Your task to perform on an android device: Check the news Image 0: 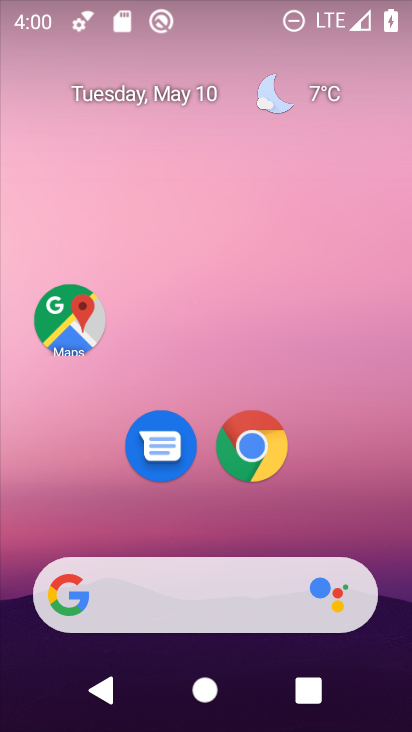
Step 0: drag from (222, 510) to (214, 120)
Your task to perform on an android device: Check the news Image 1: 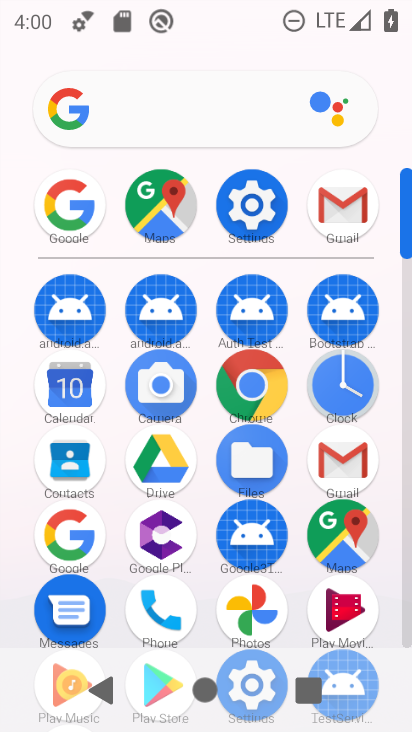
Step 1: click (82, 547)
Your task to perform on an android device: Check the news Image 2: 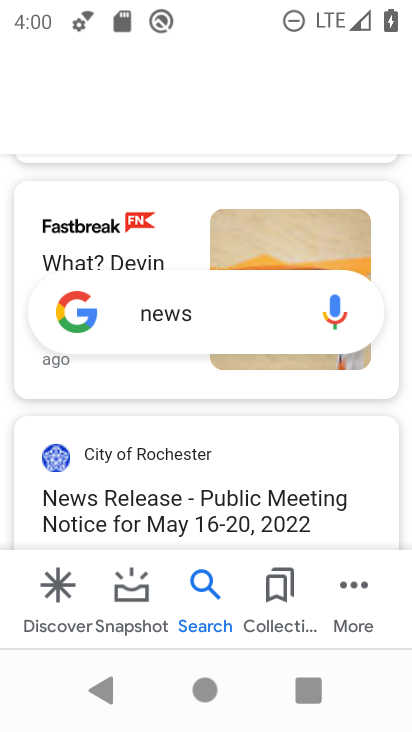
Step 2: task complete